Your task to perform on an android device: Open Google Maps Image 0: 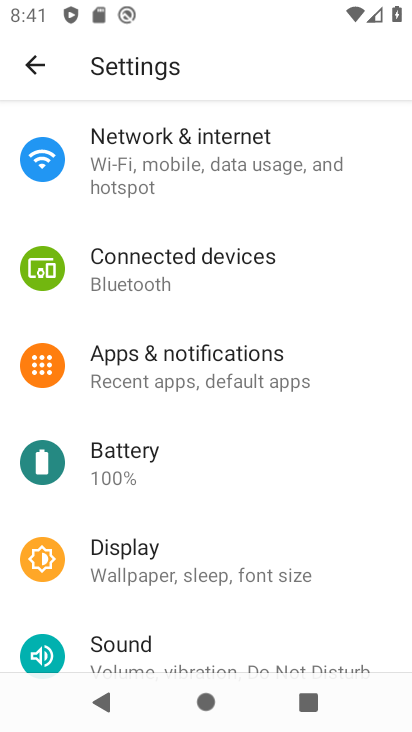
Step 0: press home button
Your task to perform on an android device: Open Google Maps Image 1: 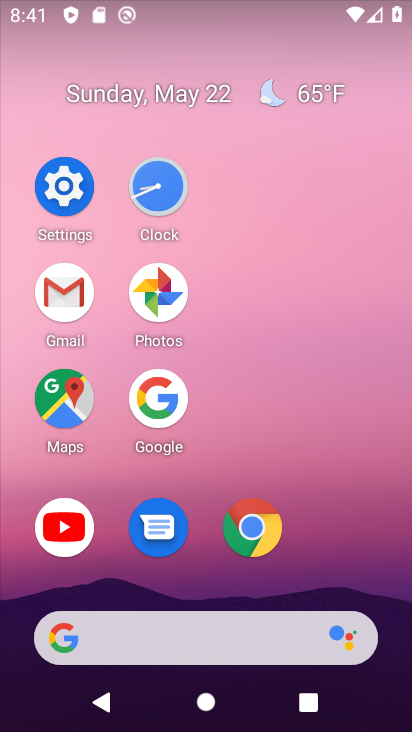
Step 1: click (71, 407)
Your task to perform on an android device: Open Google Maps Image 2: 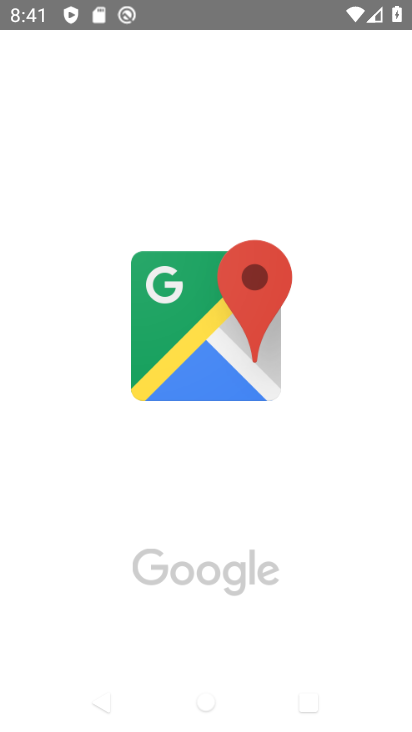
Step 2: task complete